Your task to perform on an android device: What is the recent news? Image 0: 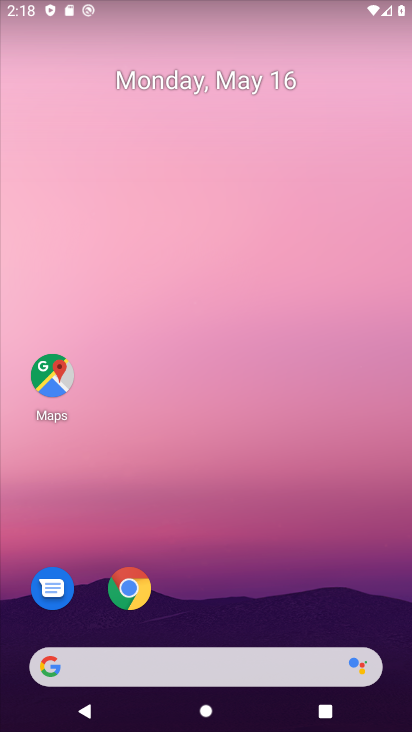
Step 0: drag from (3, 319) to (411, 267)
Your task to perform on an android device: What is the recent news? Image 1: 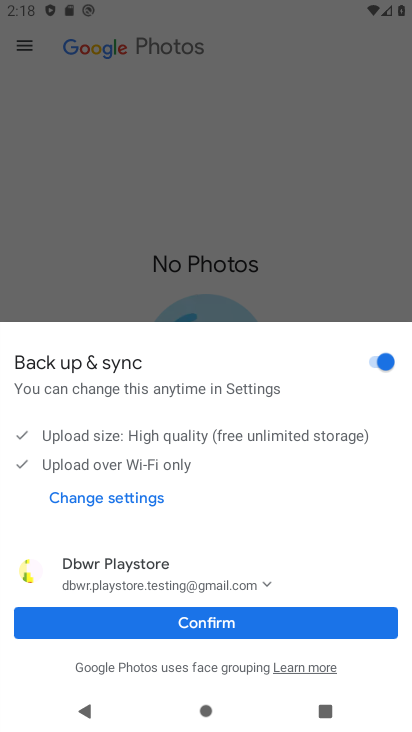
Step 1: task complete